Your task to perform on an android device: Find the nearest electronics store that's open now Image 0: 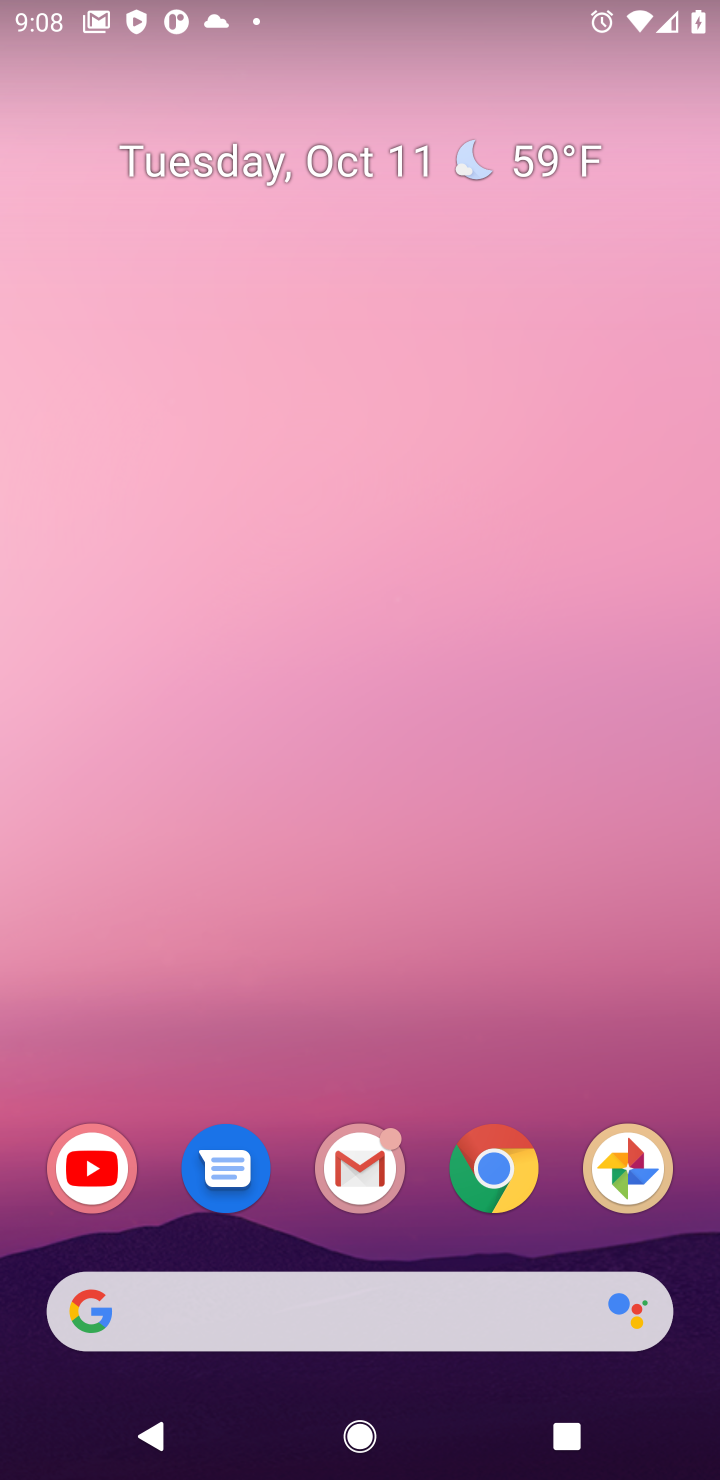
Step 0: click (503, 1160)
Your task to perform on an android device: Find the nearest electronics store that's open now Image 1: 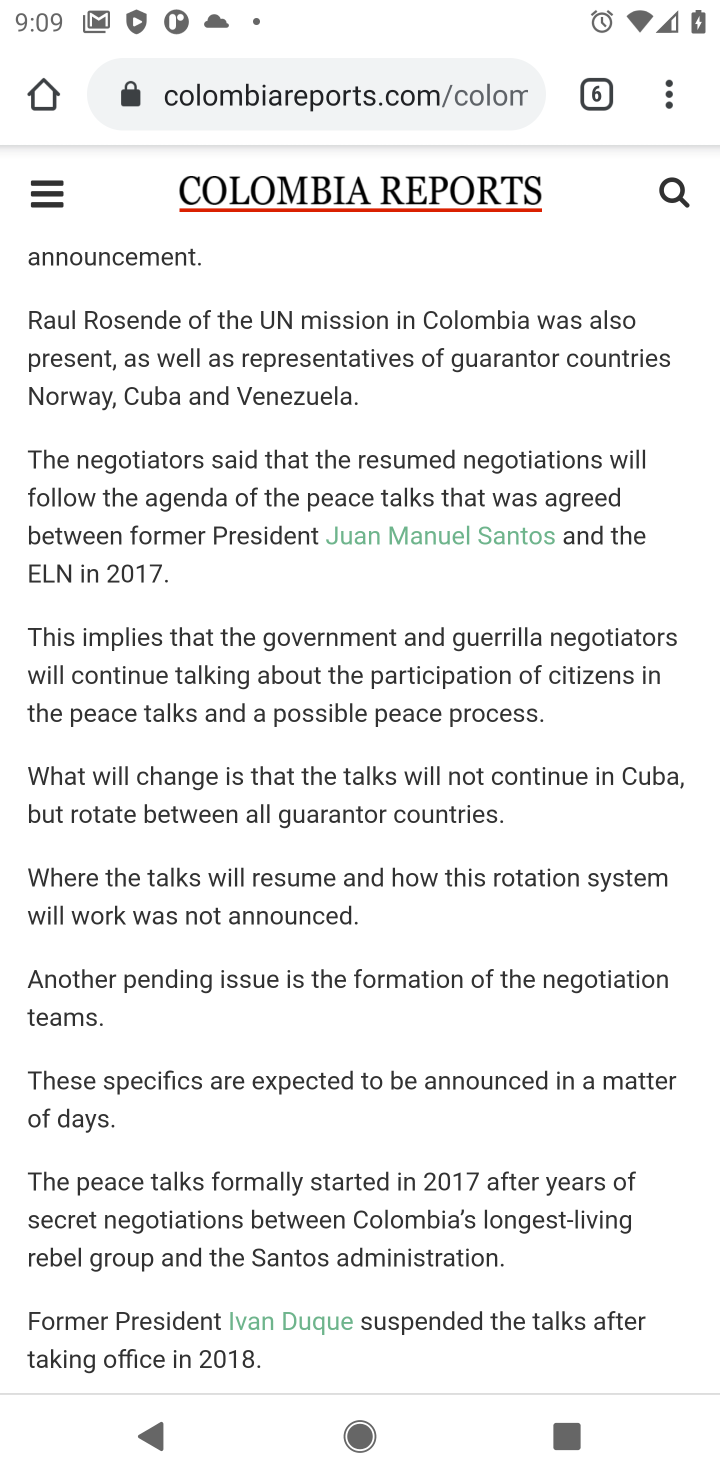
Step 1: click (392, 99)
Your task to perform on an android device: Find the nearest electronics store that's open now Image 2: 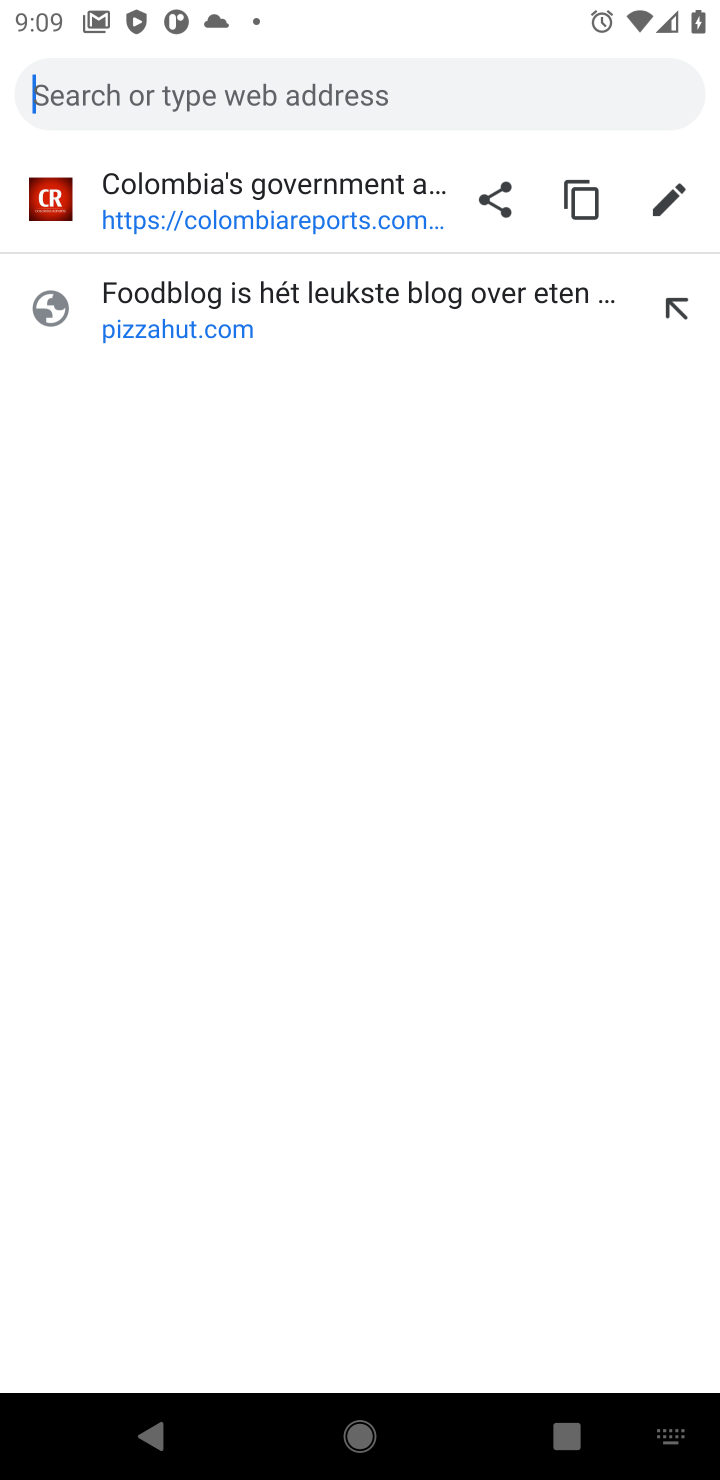
Step 2: type "nearest electronic store that open now"
Your task to perform on an android device: Find the nearest electronics store that's open now Image 3: 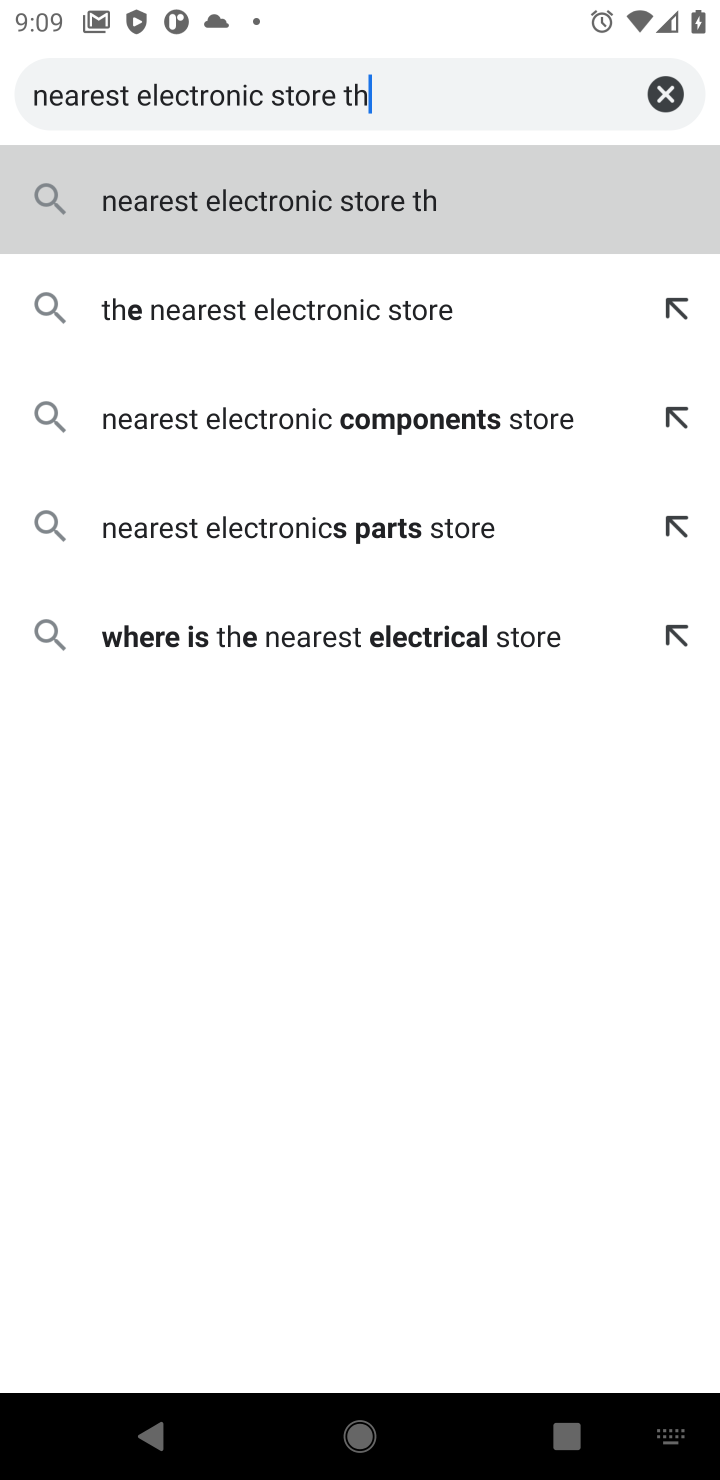
Step 3: click (317, 326)
Your task to perform on an android device: Find the nearest electronics store that's open now Image 4: 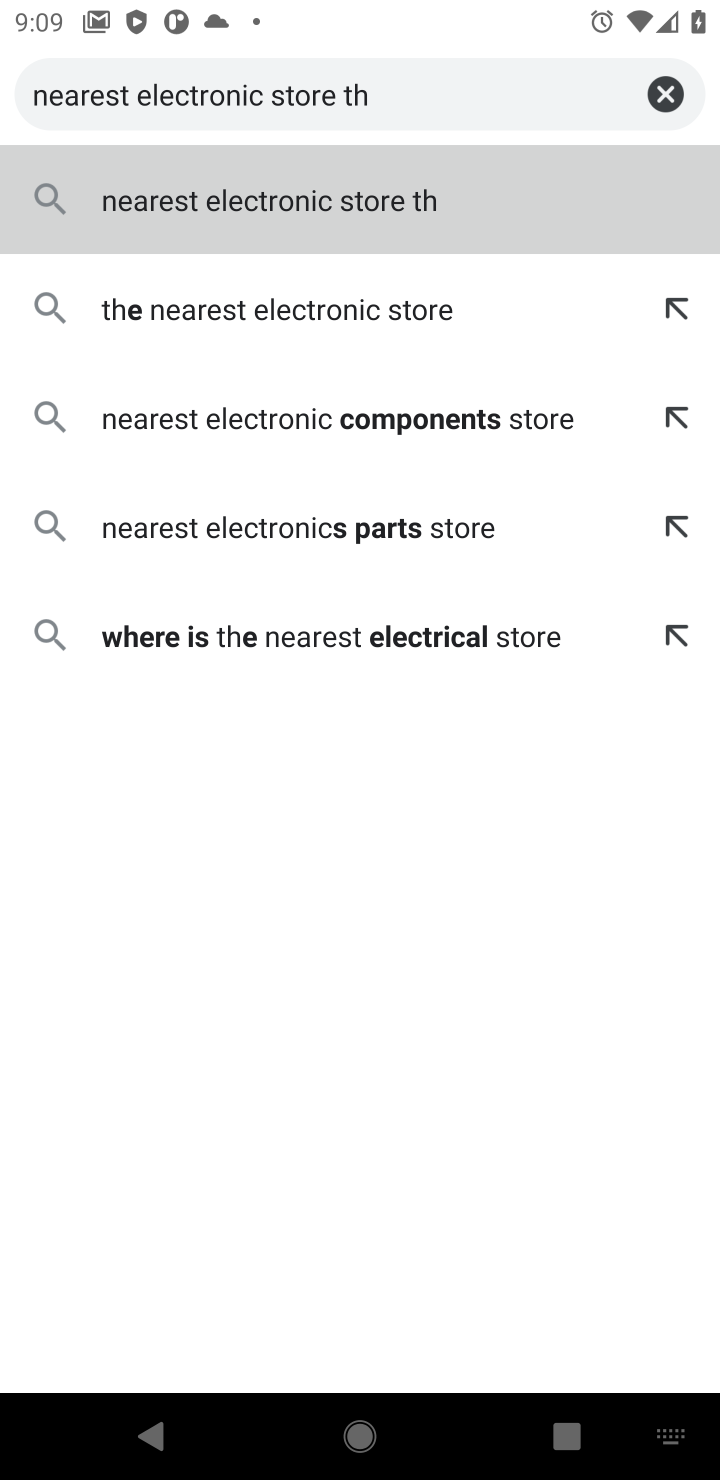
Step 4: click (322, 313)
Your task to perform on an android device: Find the nearest electronics store that's open now Image 5: 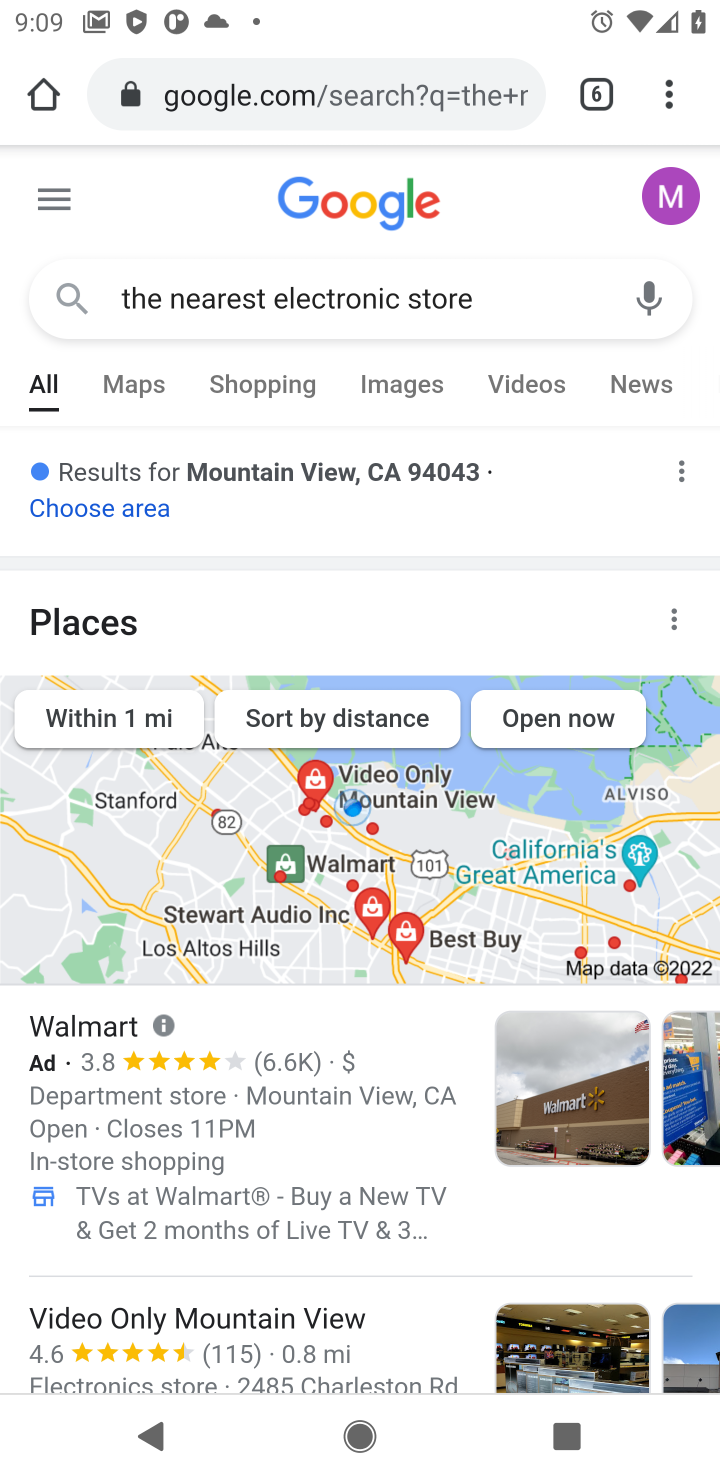
Step 5: drag from (273, 1098) to (372, 431)
Your task to perform on an android device: Find the nearest electronics store that's open now Image 6: 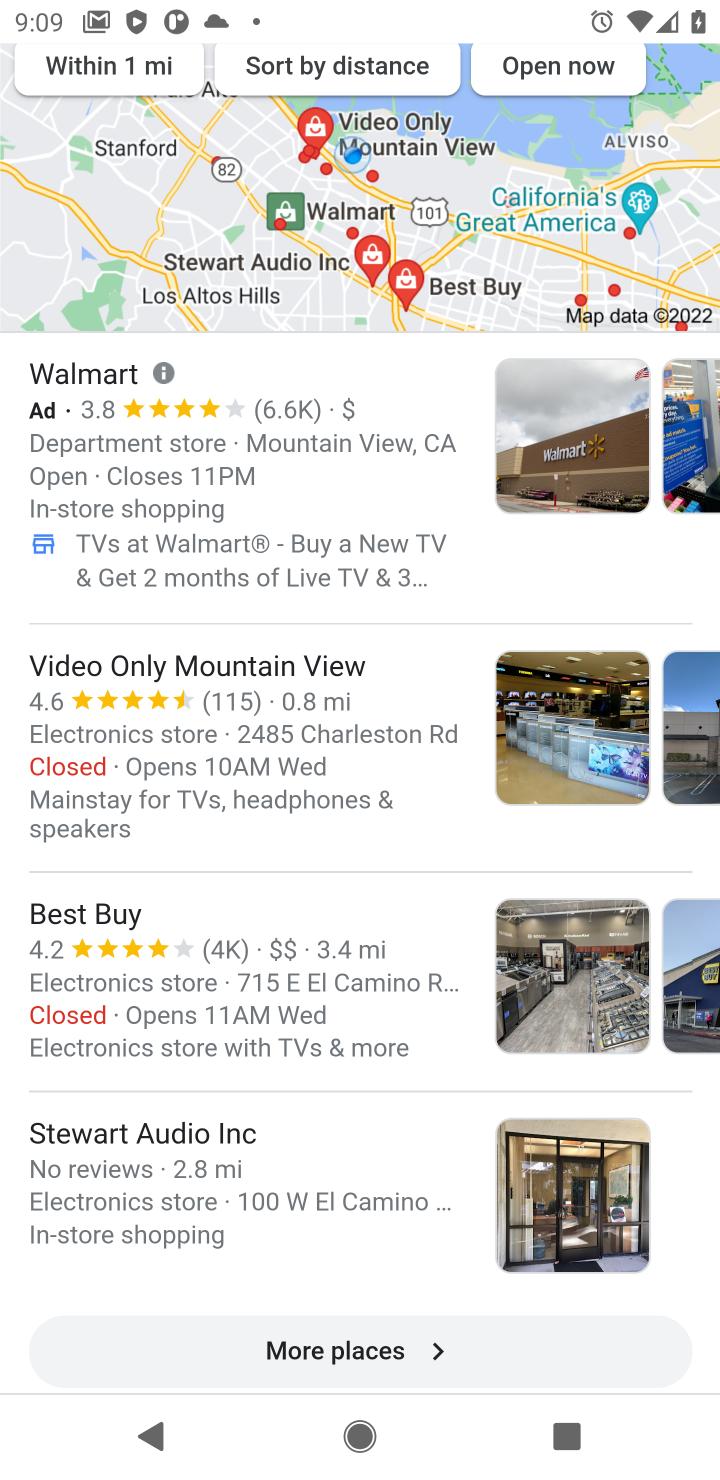
Step 6: click (71, 903)
Your task to perform on an android device: Find the nearest electronics store that's open now Image 7: 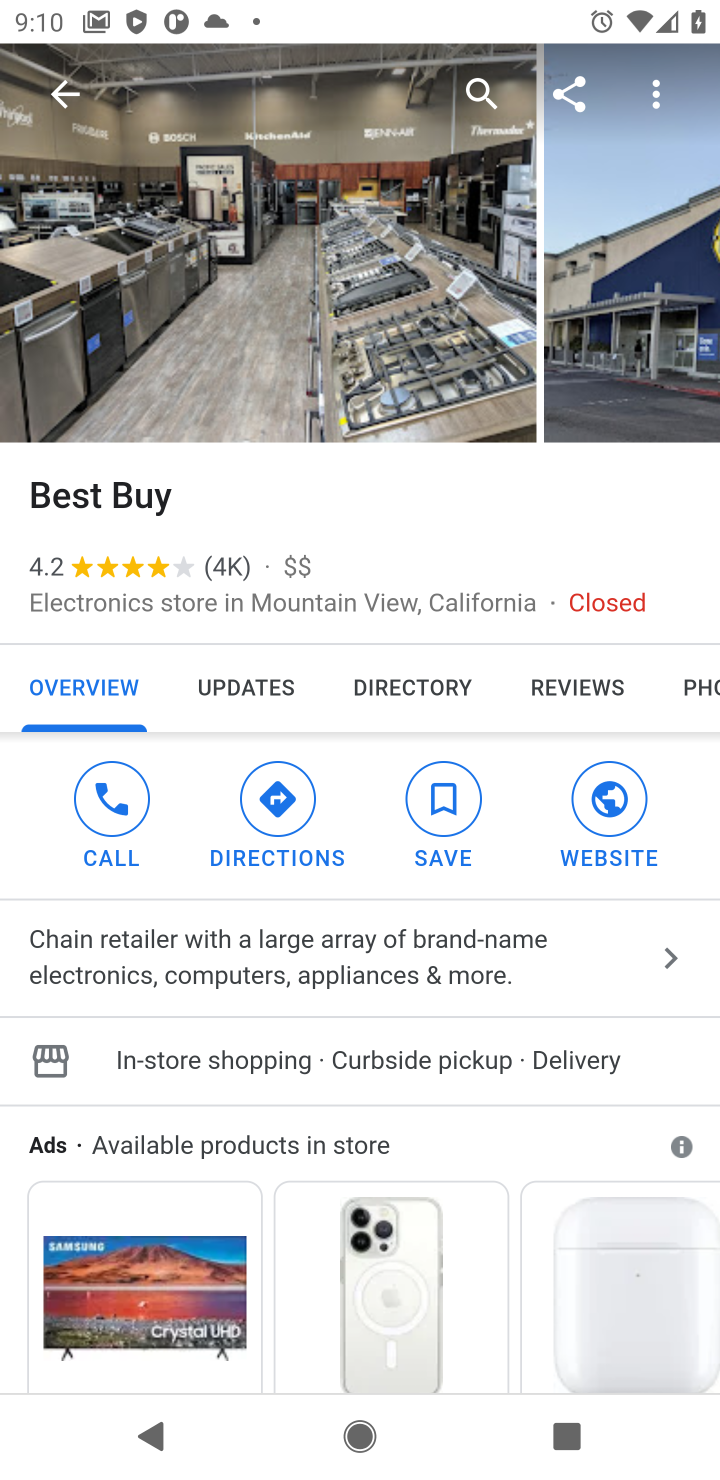
Step 7: drag from (514, 907) to (587, 398)
Your task to perform on an android device: Find the nearest electronics store that's open now Image 8: 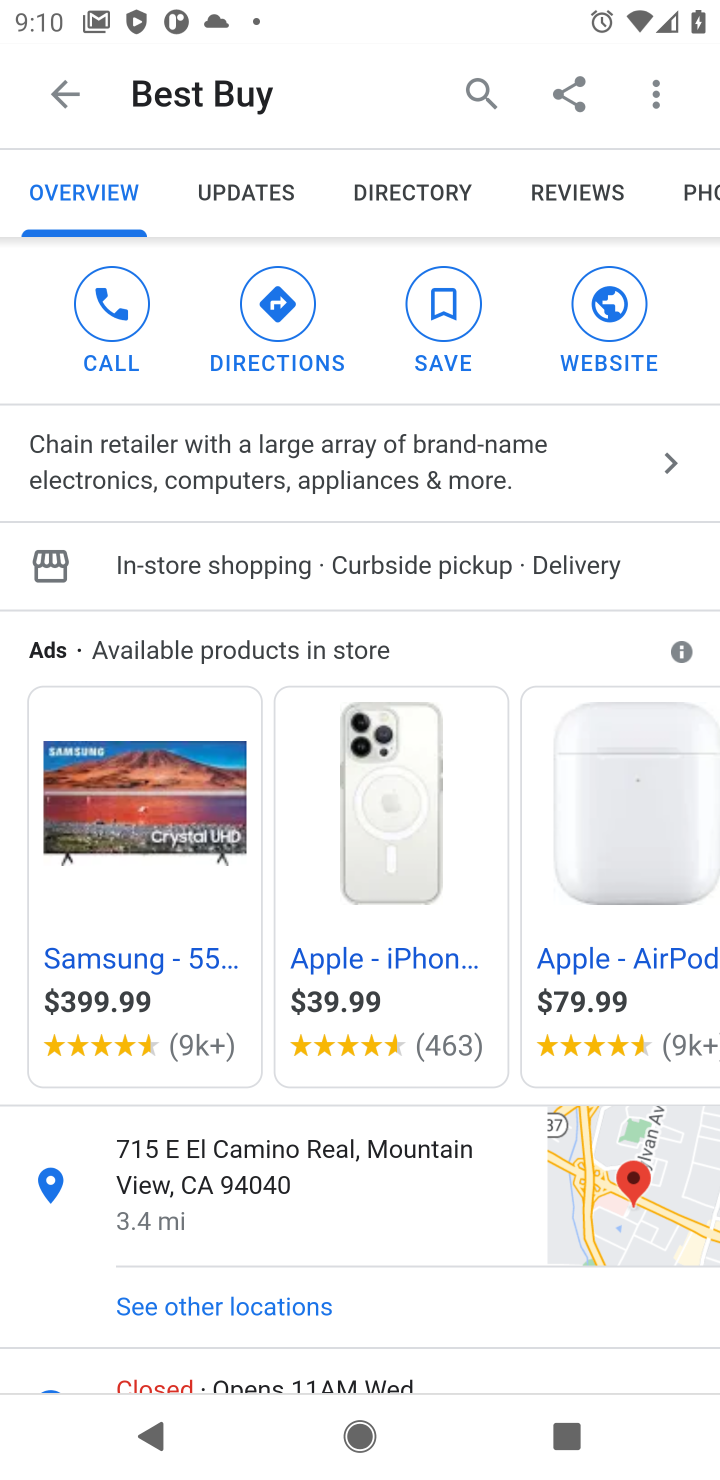
Step 8: drag from (336, 1171) to (420, 521)
Your task to perform on an android device: Find the nearest electronics store that's open now Image 9: 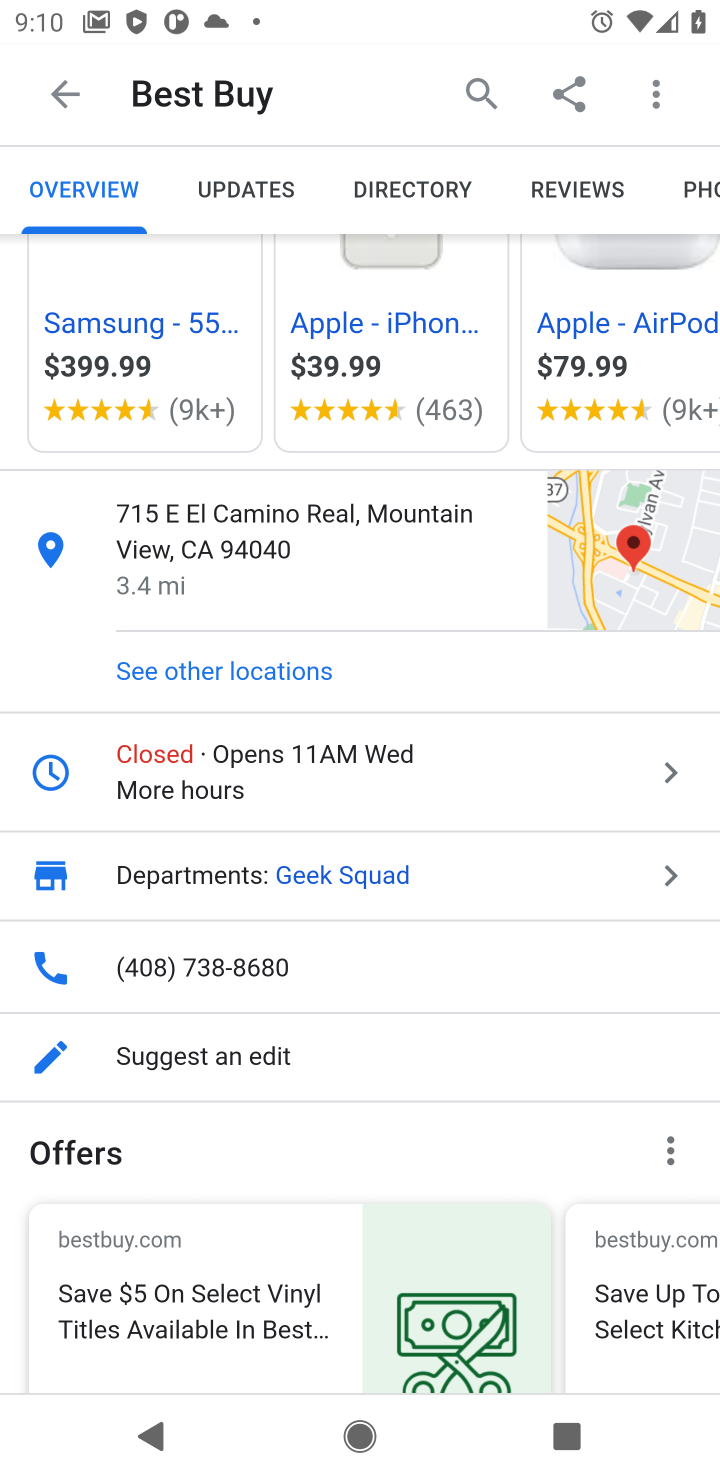
Step 9: drag from (285, 1124) to (402, 555)
Your task to perform on an android device: Find the nearest electronics store that's open now Image 10: 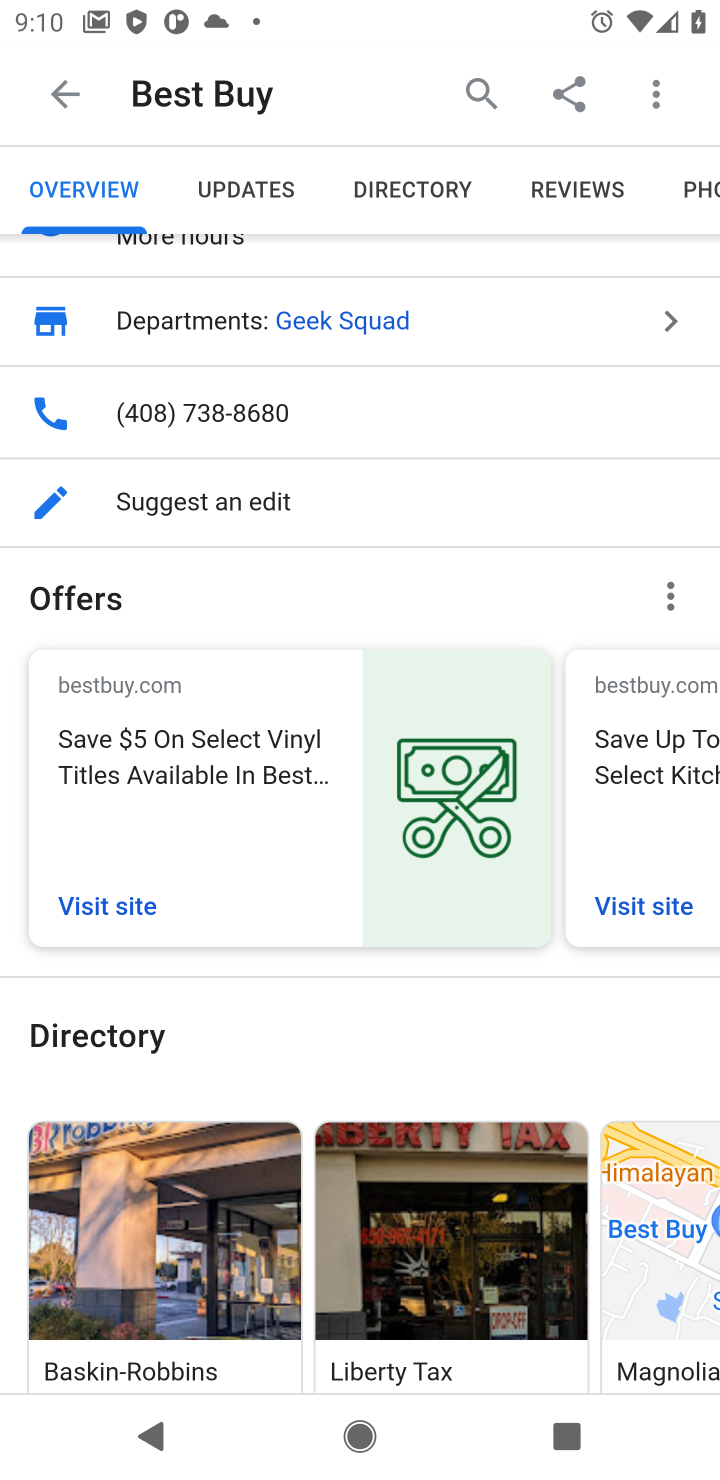
Step 10: drag from (318, 508) to (237, 1426)
Your task to perform on an android device: Find the nearest electronics store that's open now Image 11: 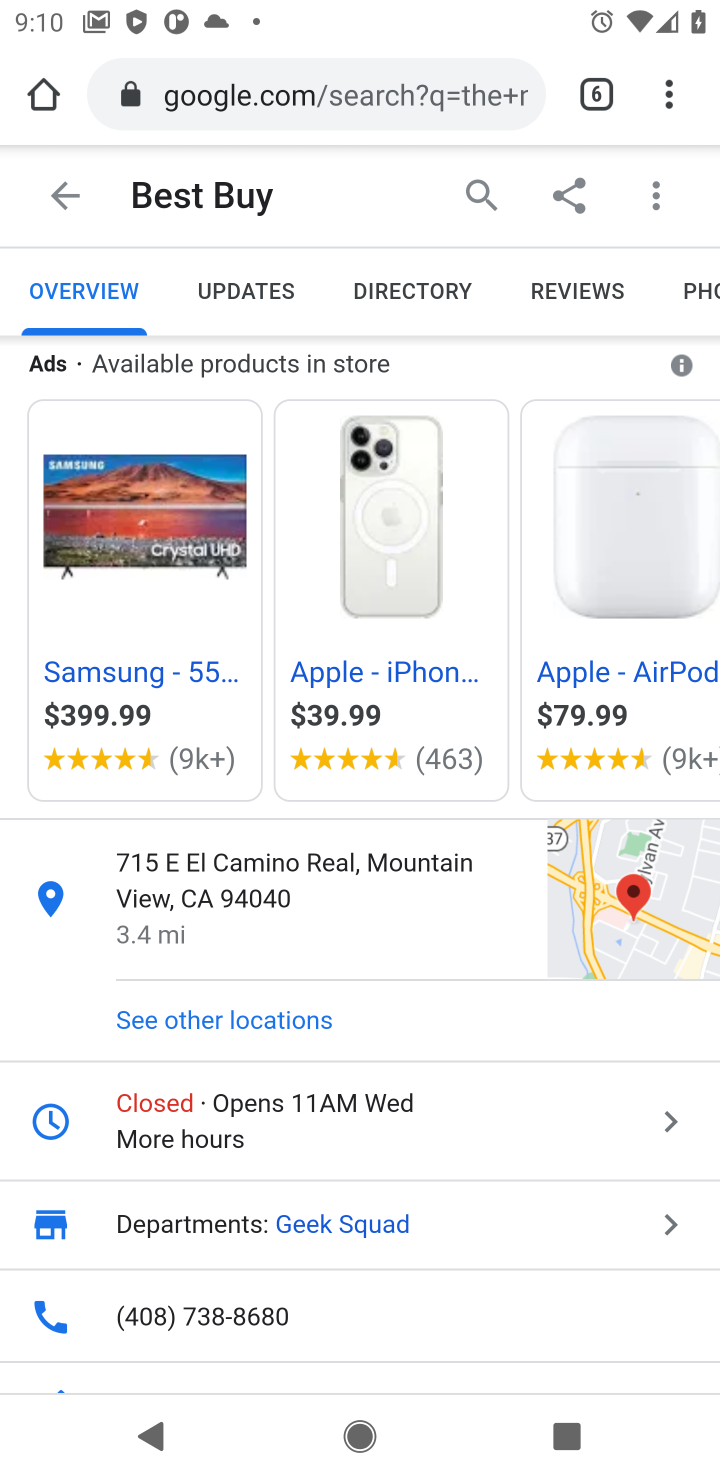
Step 11: click (116, 544)
Your task to perform on an android device: Find the nearest electronics store that's open now Image 12: 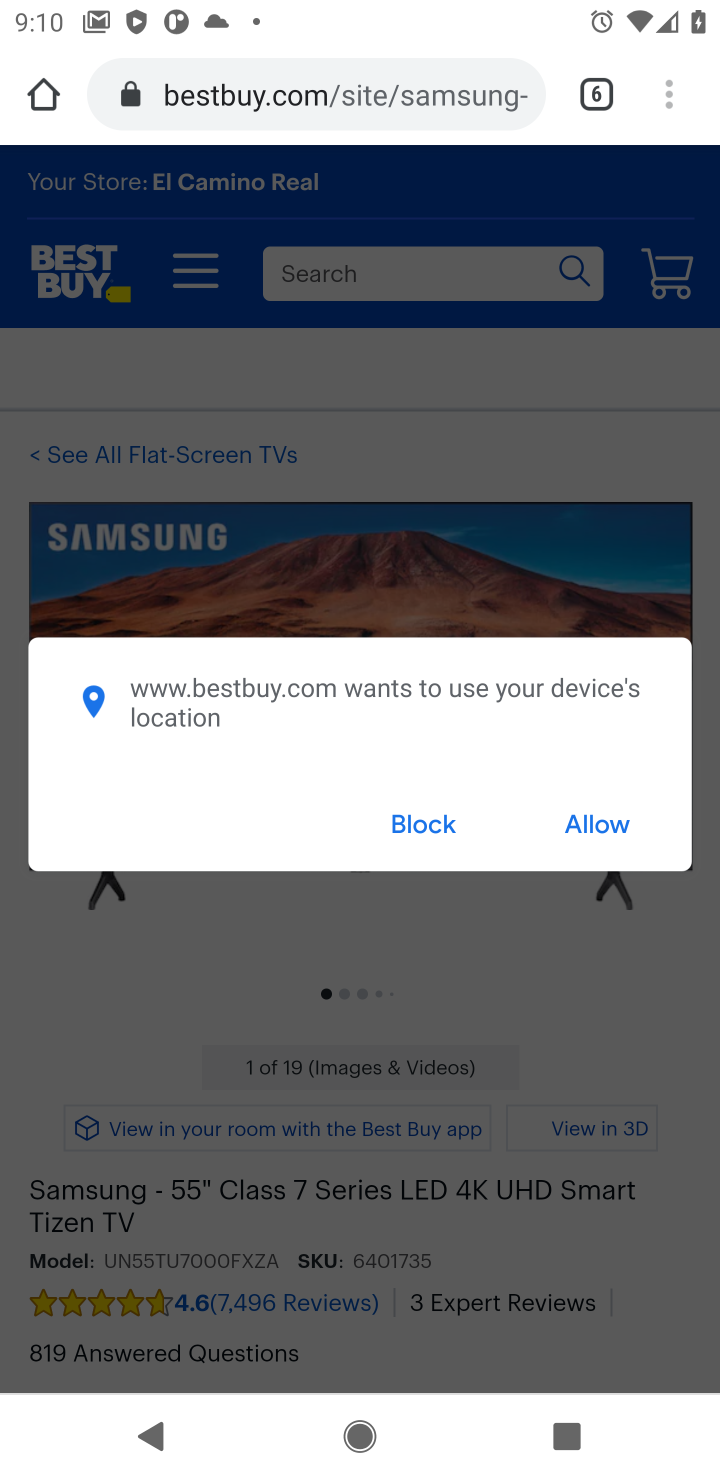
Step 12: click (599, 830)
Your task to perform on an android device: Find the nearest electronics store that's open now Image 13: 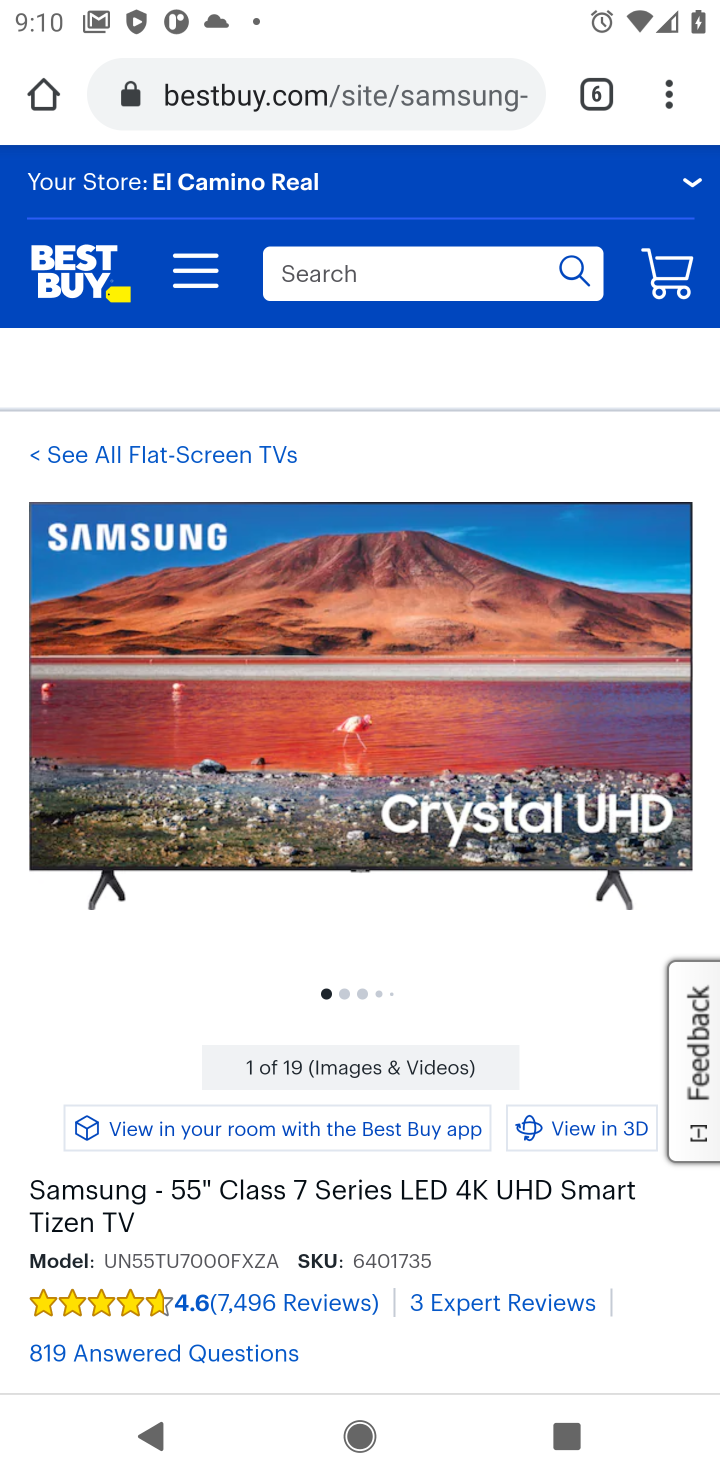
Step 13: task complete